Your task to perform on an android device: check the backup settings in the google photos Image 0: 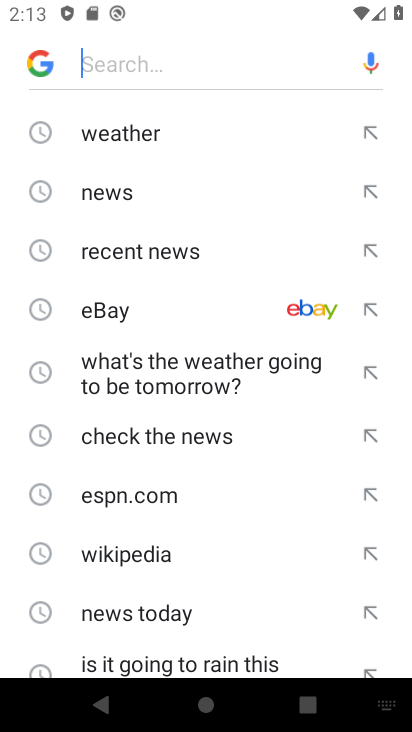
Step 0: press home button
Your task to perform on an android device: check the backup settings in the google photos Image 1: 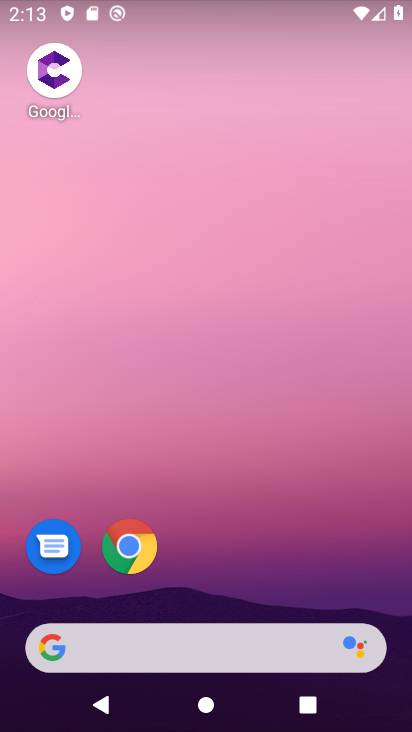
Step 1: drag from (231, 718) to (229, 180)
Your task to perform on an android device: check the backup settings in the google photos Image 2: 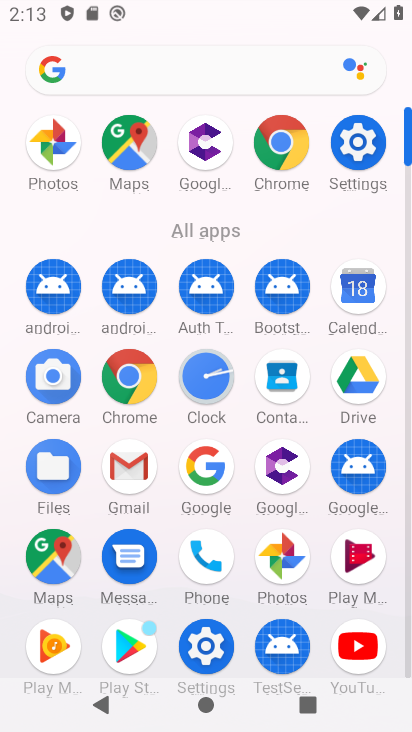
Step 2: click (266, 553)
Your task to perform on an android device: check the backup settings in the google photos Image 3: 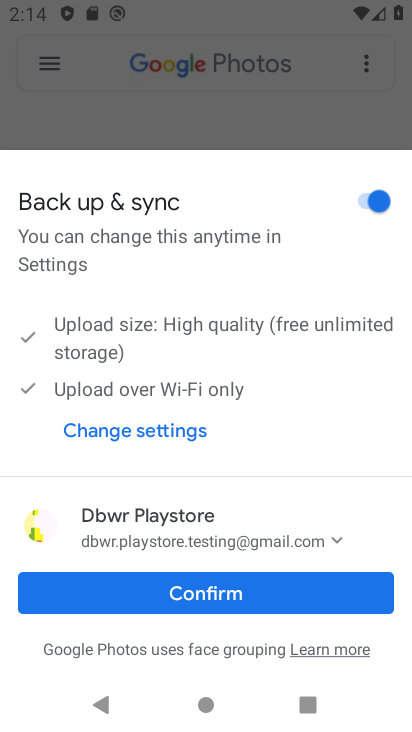
Step 3: click (199, 598)
Your task to perform on an android device: check the backup settings in the google photos Image 4: 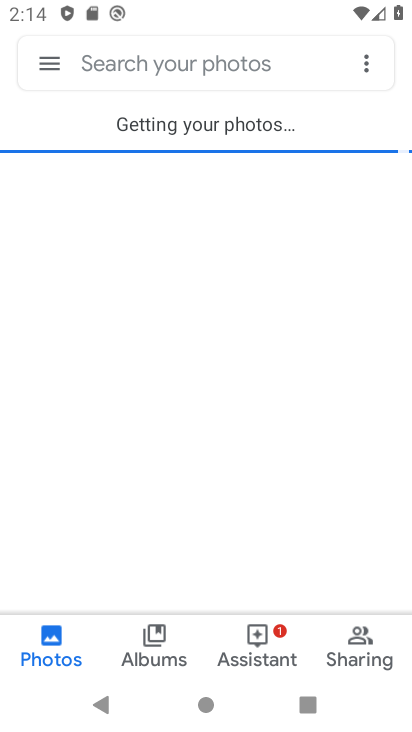
Step 4: click (51, 62)
Your task to perform on an android device: check the backup settings in the google photos Image 5: 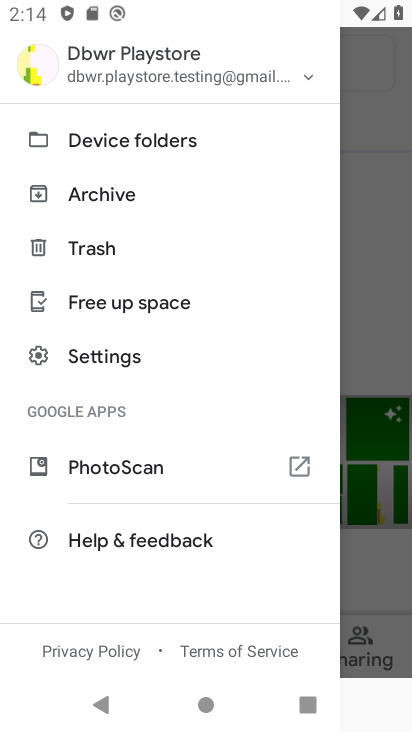
Step 5: click (114, 355)
Your task to perform on an android device: check the backup settings in the google photos Image 6: 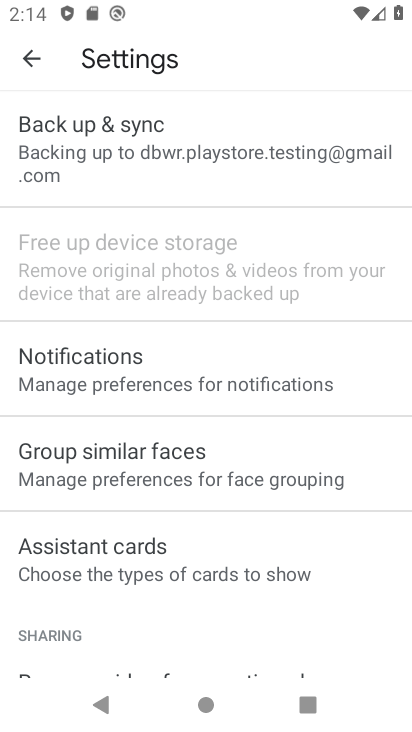
Step 6: click (86, 133)
Your task to perform on an android device: check the backup settings in the google photos Image 7: 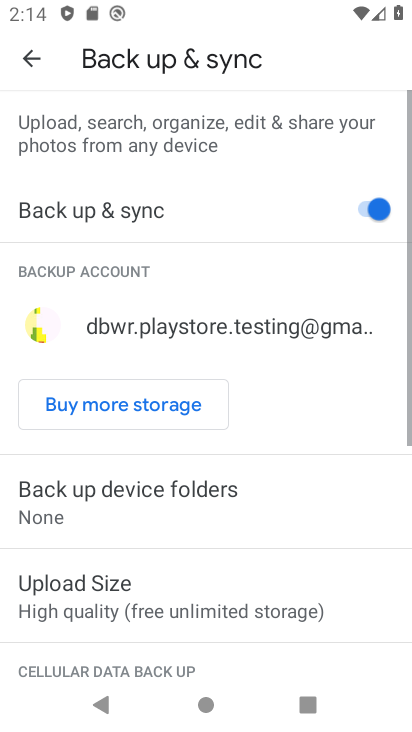
Step 7: task complete